Your task to perform on an android device: Open my contact list Image 0: 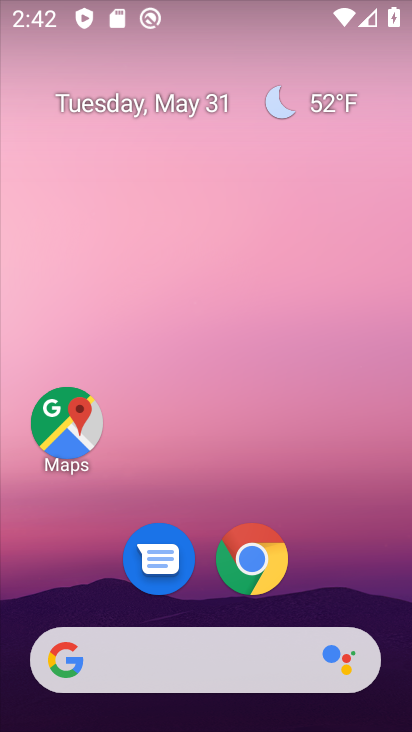
Step 0: click (39, 426)
Your task to perform on an android device: Open my contact list Image 1: 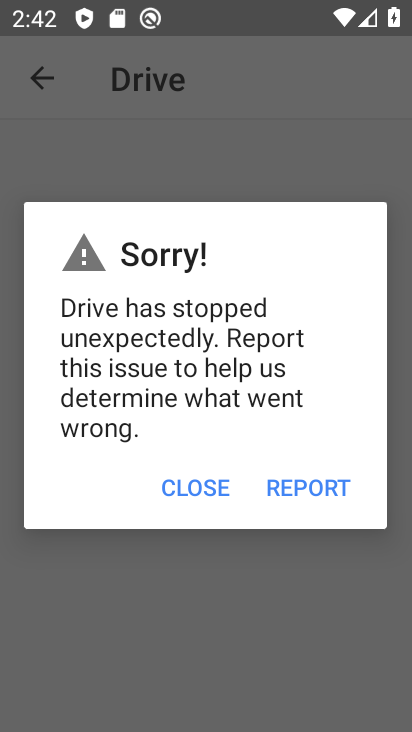
Step 1: press home button
Your task to perform on an android device: Open my contact list Image 2: 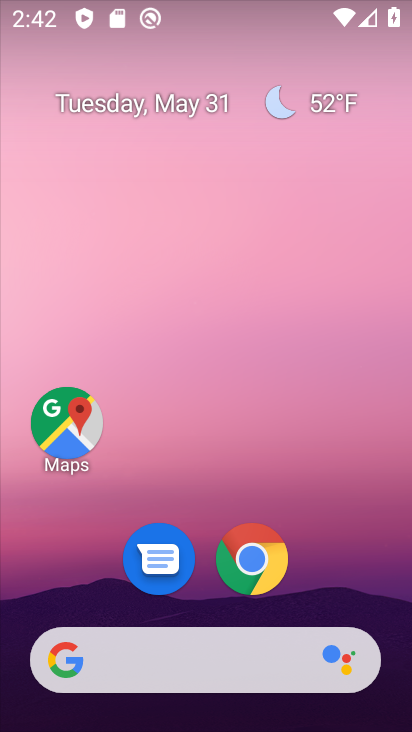
Step 2: drag from (193, 599) to (203, 100)
Your task to perform on an android device: Open my contact list Image 3: 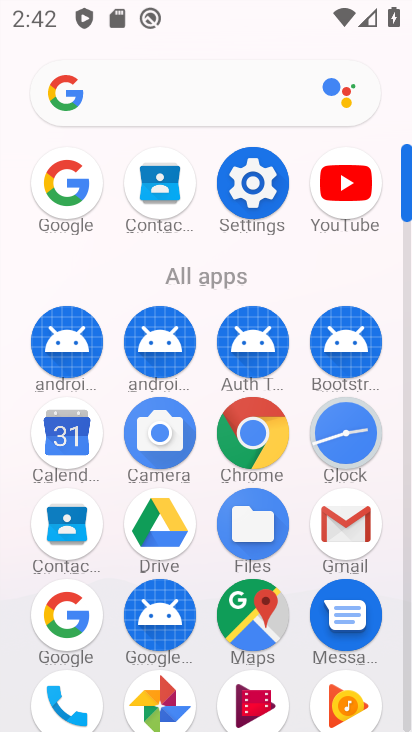
Step 3: click (64, 526)
Your task to perform on an android device: Open my contact list Image 4: 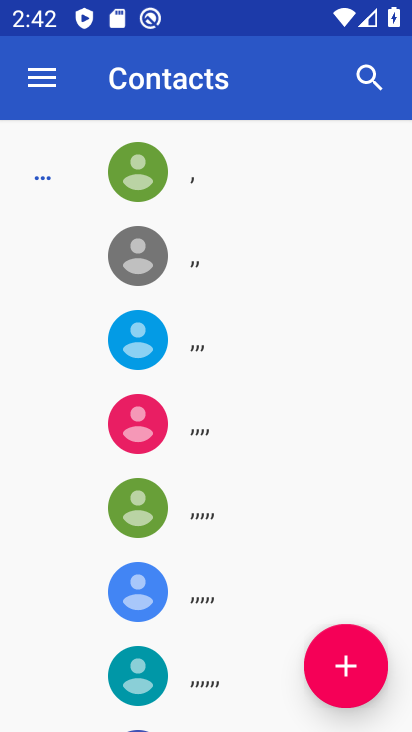
Step 4: task complete